Your task to perform on an android device: Search for "macbook pro" on walmart.com, select the first entry, and add it to the cart. Image 0: 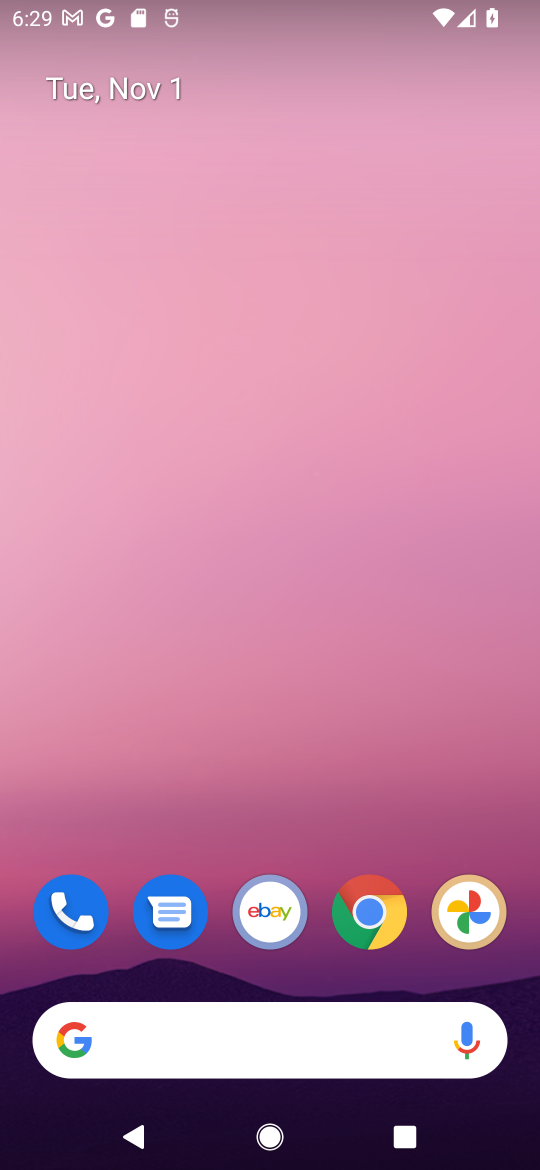
Step 0: click (64, 1046)
Your task to perform on an android device: Search for "macbook pro" on walmart.com, select the first entry, and add it to the cart. Image 1: 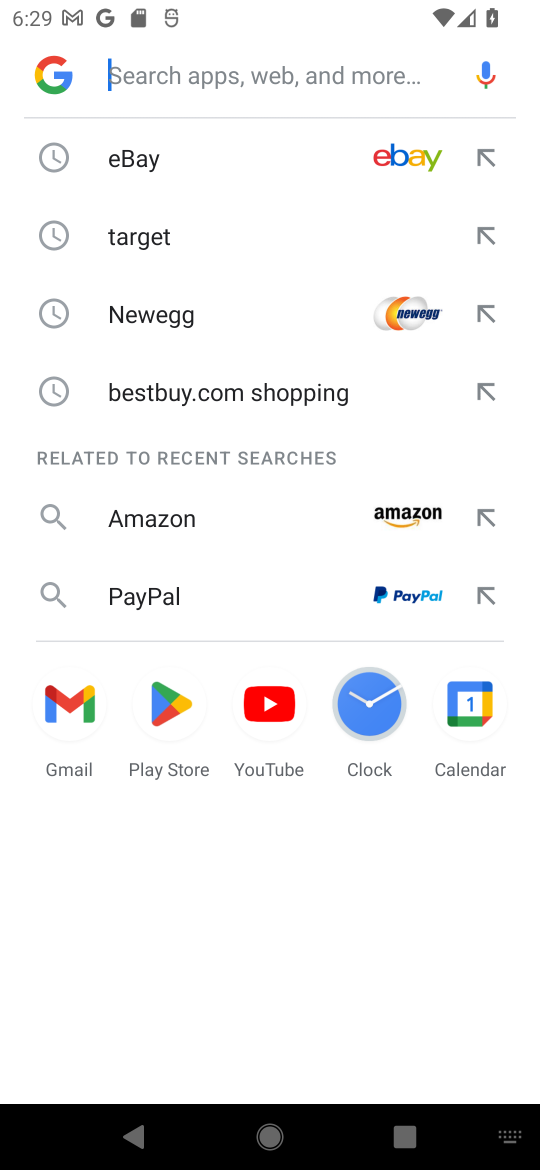
Step 1: type "walmart.com"
Your task to perform on an android device: Search for "macbook pro" on walmart.com, select the first entry, and add it to the cart. Image 2: 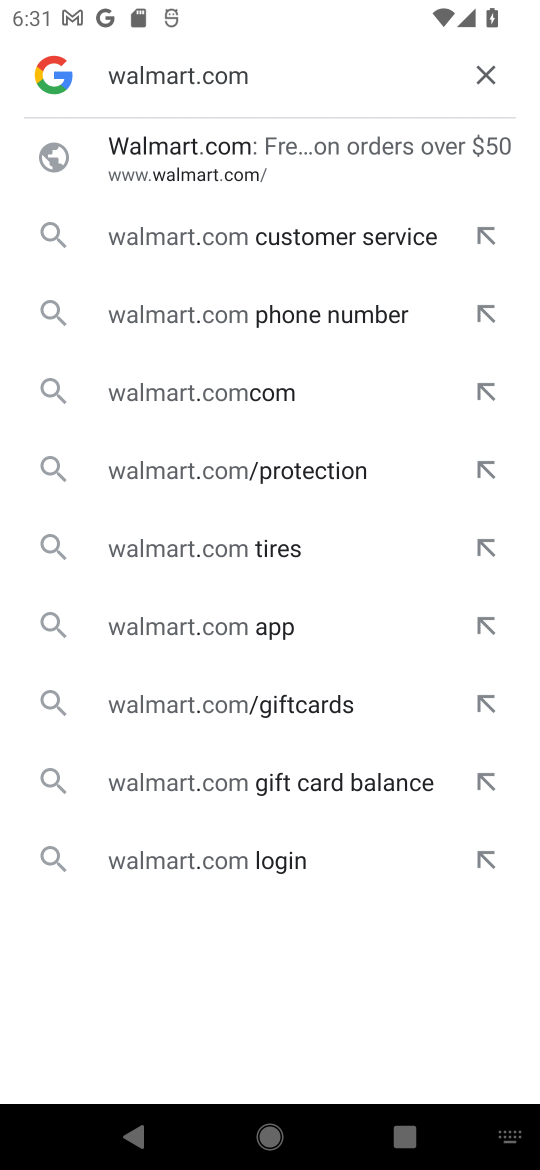
Step 2: click (271, 155)
Your task to perform on an android device: Search for "macbook pro" on walmart.com, select the first entry, and add it to the cart. Image 3: 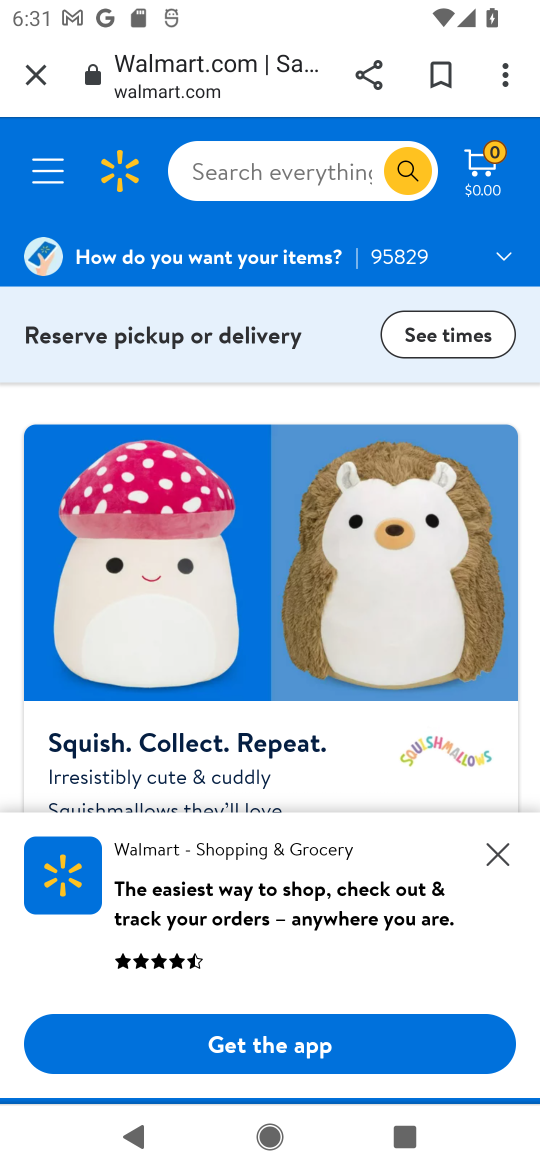
Step 3: click (287, 159)
Your task to perform on an android device: Search for "macbook pro" on walmart.com, select the first entry, and add it to the cart. Image 4: 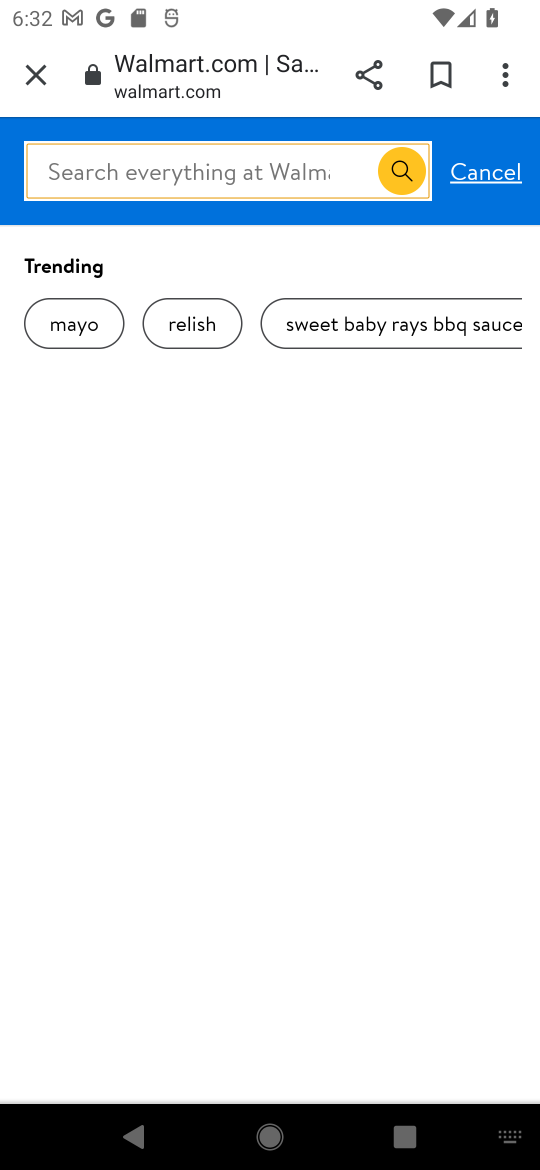
Step 4: type "macbook pro"
Your task to perform on an android device: Search for "macbook pro" on walmart.com, select the first entry, and add it to the cart. Image 5: 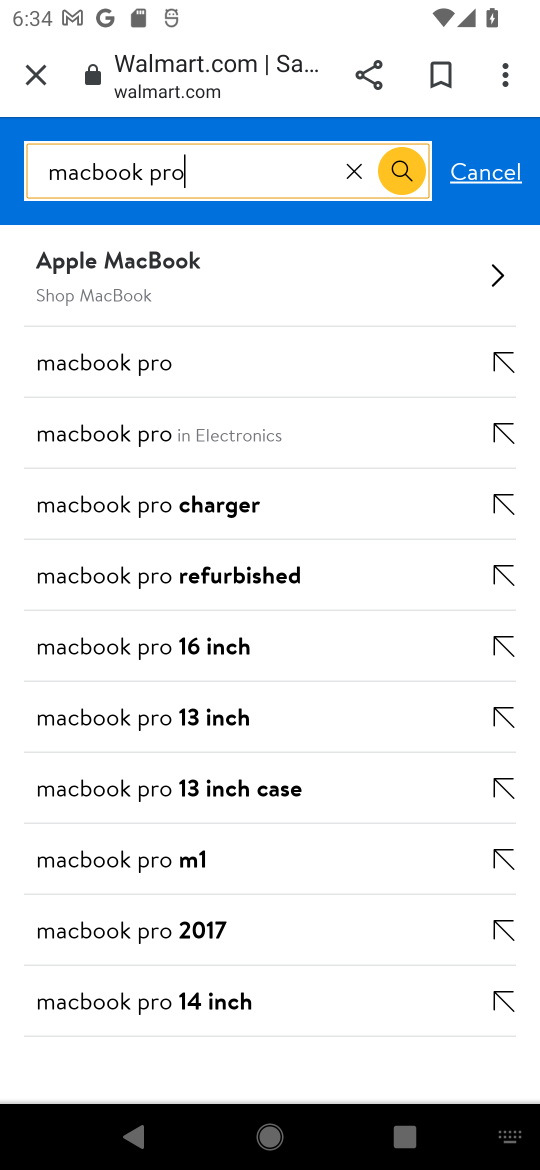
Step 5: click (133, 266)
Your task to perform on an android device: Search for "macbook pro" on walmart.com, select the first entry, and add it to the cart. Image 6: 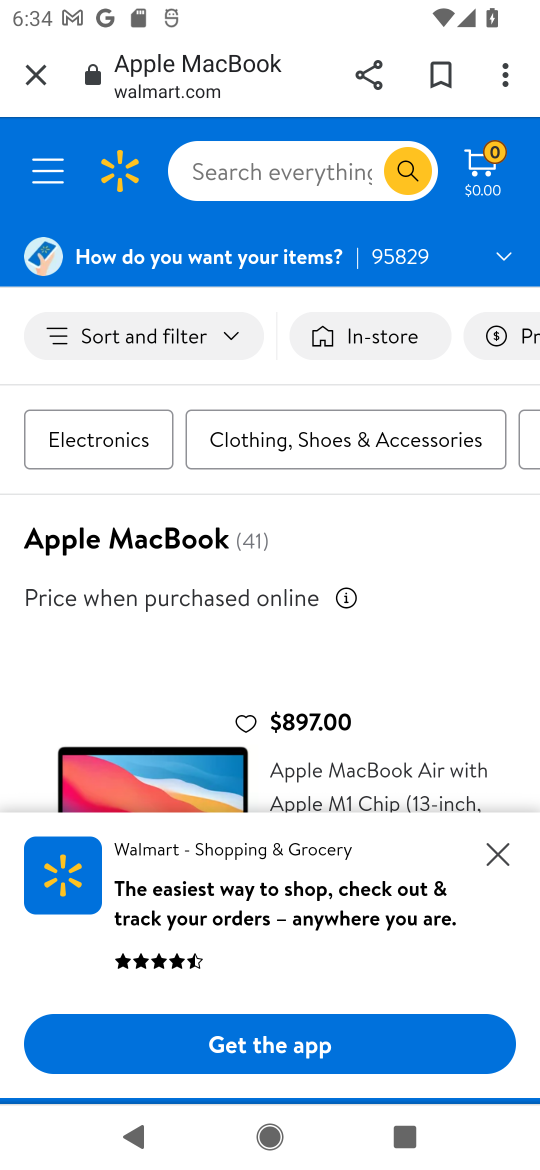
Step 6: drag from (241, 215) to (239, 156)
Your task to perform on an android device: Search for "macbook pro" on walmart.com, select the first entry, and add it to the cart. Image 7: 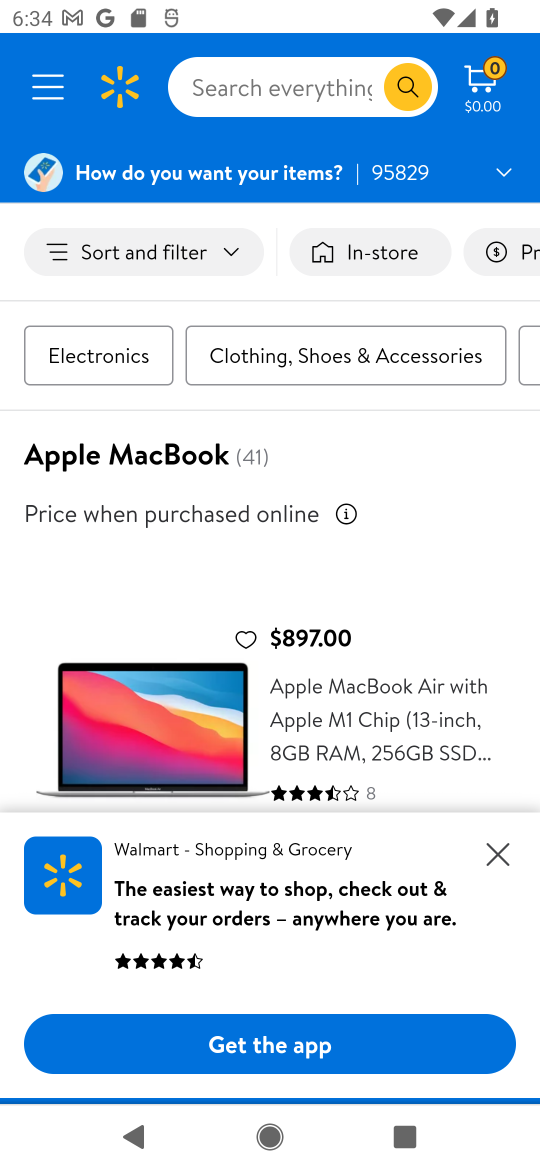
Step 7: click (491, 860)
Your task to perform on an android device: Search for "macbook pro" on walmart.com, select the first entry, and add it to the cart. Image 8: 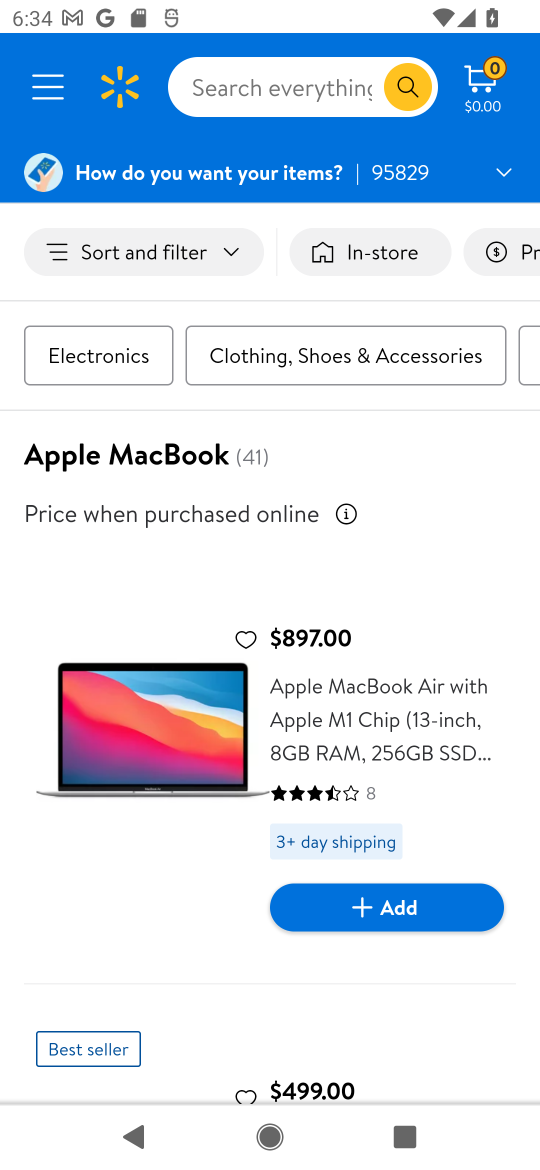
Step 8: click (354, 912)
Your task to perform on an android device: Search for "macbook pro" on walmart.com, select the first entry, and add it to the cart. Image 9: 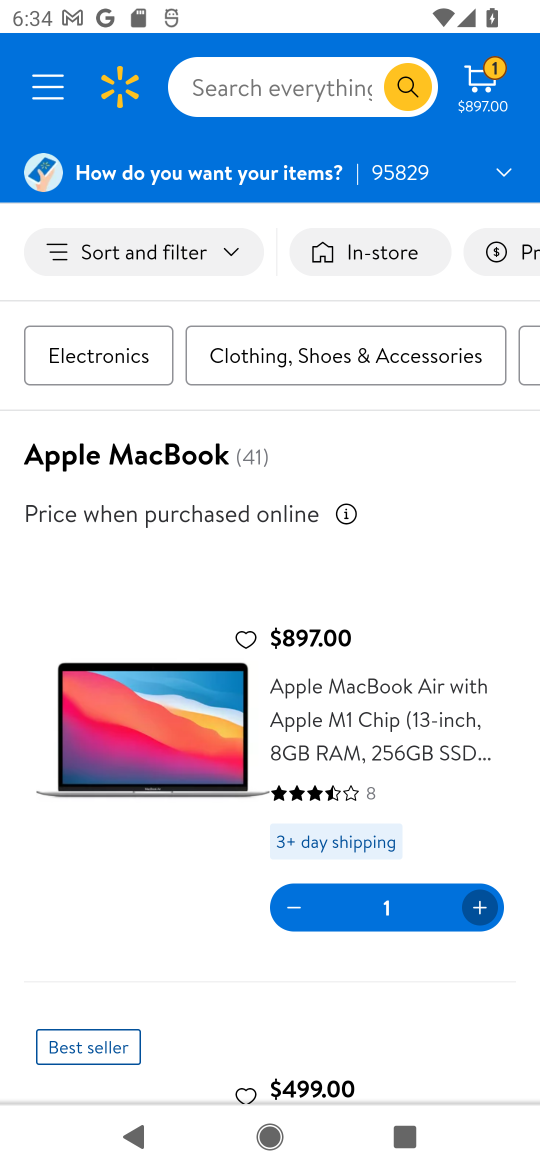
Step 9: task complete